Your task to perform on an android device: set an alarm Image 0: 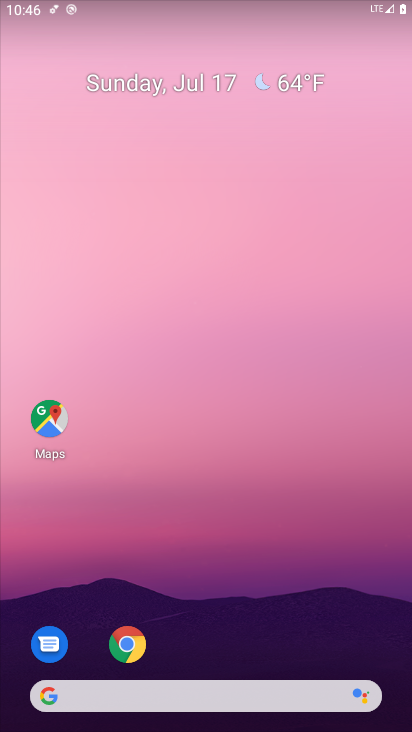
Step 0: press home button
Your task to perform on an android device: set an alarm Image 1: 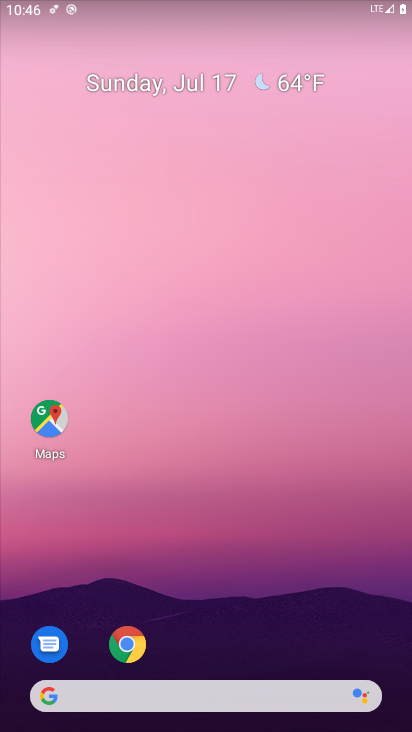
Step 1: drag from (249, 651) to (228, 157)
Your task to perform on an android device: set an alarm Image 2: 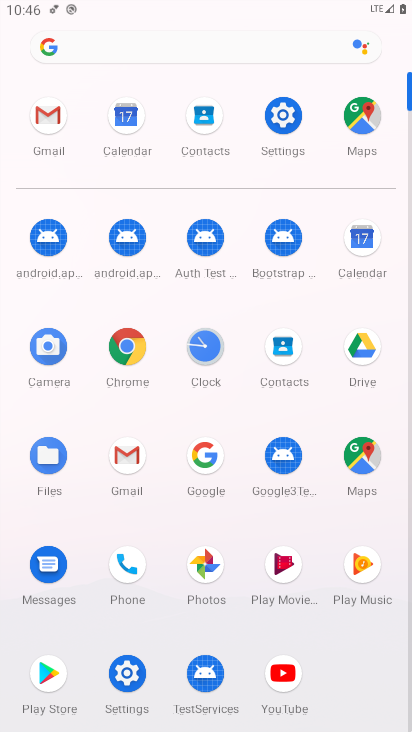
Step 2: click (204, 355)
Your task to perform on an android device: set an alarm Image 3: 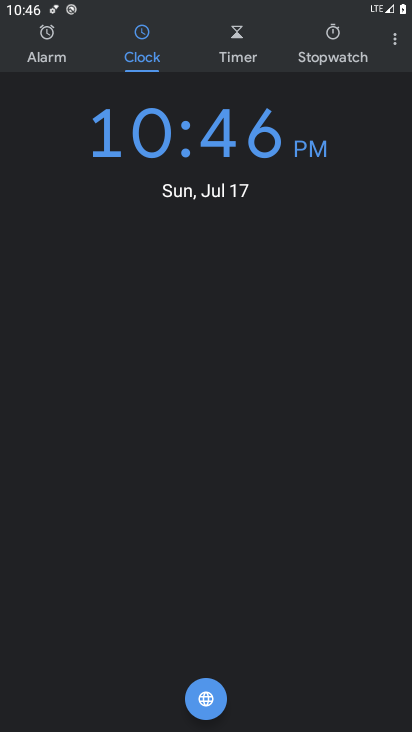
Step 3: click (54, 33)
Your task to perform on an android device: set an alarm Image 4: 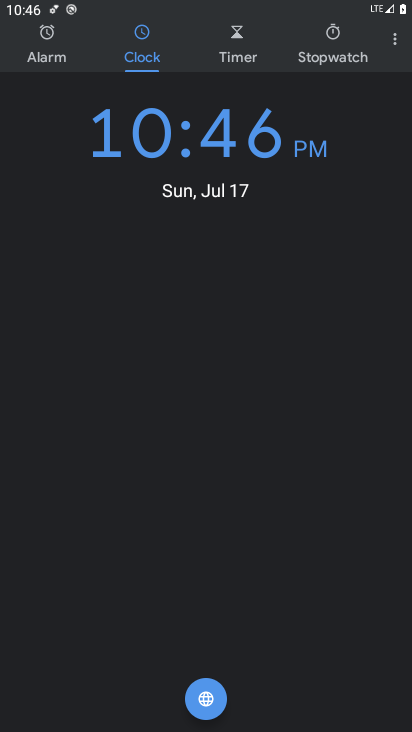
Step 4: click (37, 54)
Your task to perform on an android device: set an alarm Image 5: 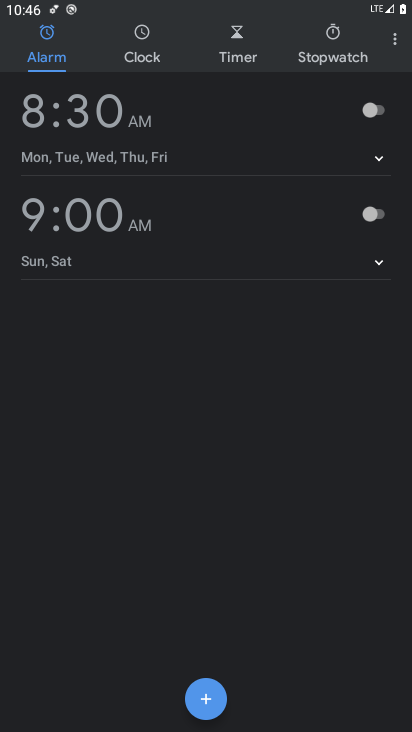
Step 5: click (197, 705)
Your task to perform on an android device: set an alarm Image 6: 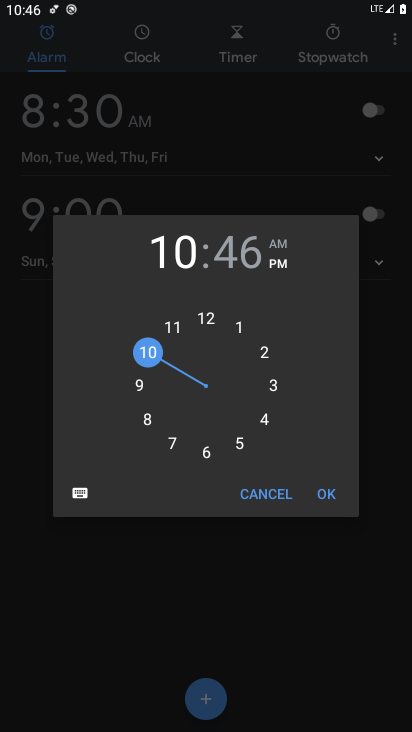
Step 6: click (265, 420)
Your task to perform on an android device: set an alarm Image 7: 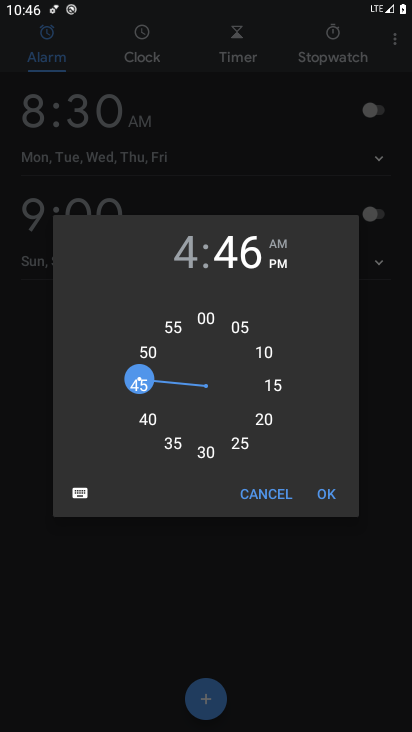
Step 7: click (333, 491)
Your task to perform on an android device: set an alarm Image 8: 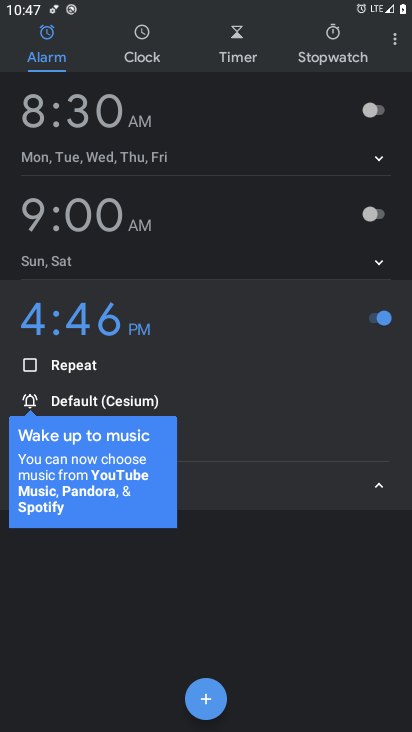
Step 8: task complete